Your task to perform on an android device: open app "Facebook" (install if not already installed) and go to login screen Image 0: 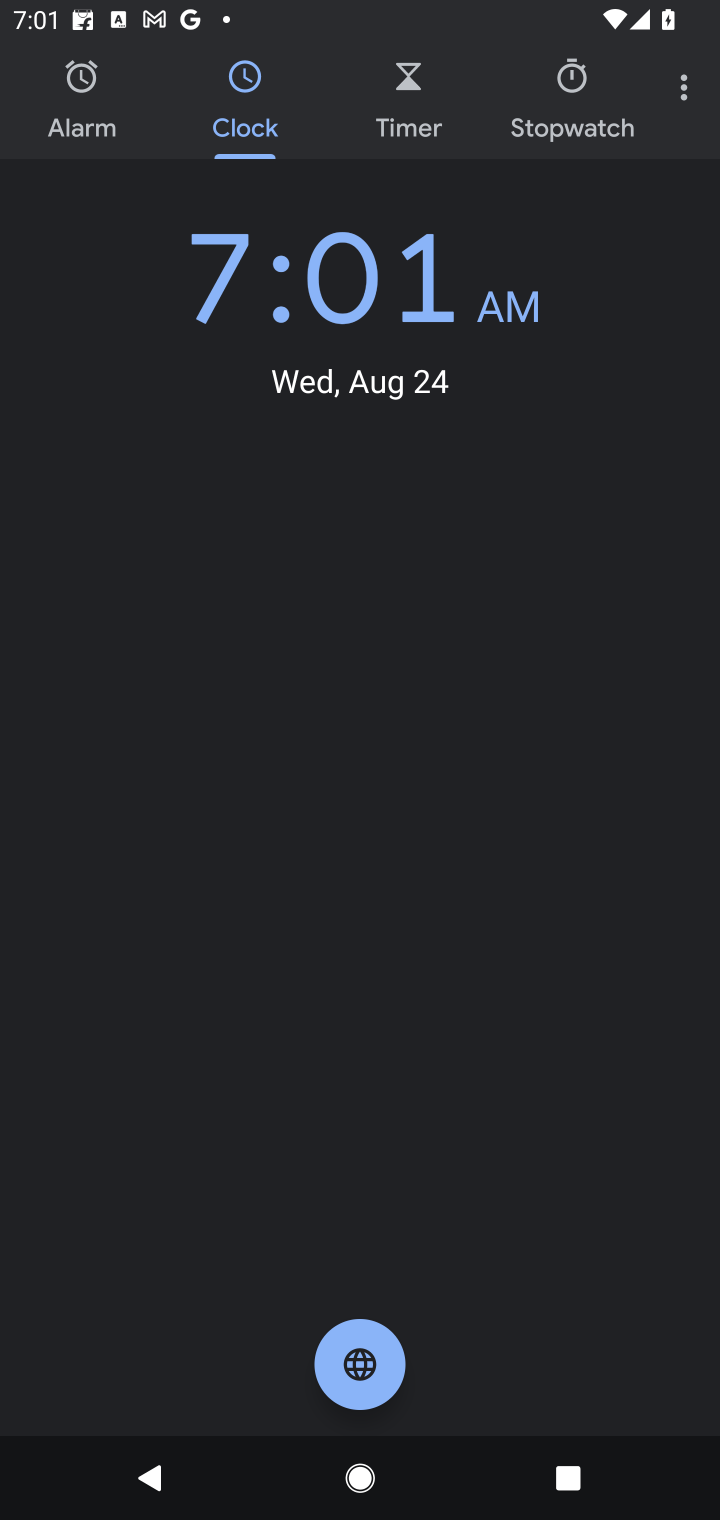
Step 0: press home button
Your task to perform on an android device: open app "Facebook" (install if not already installed) and go to login screen Image 1: 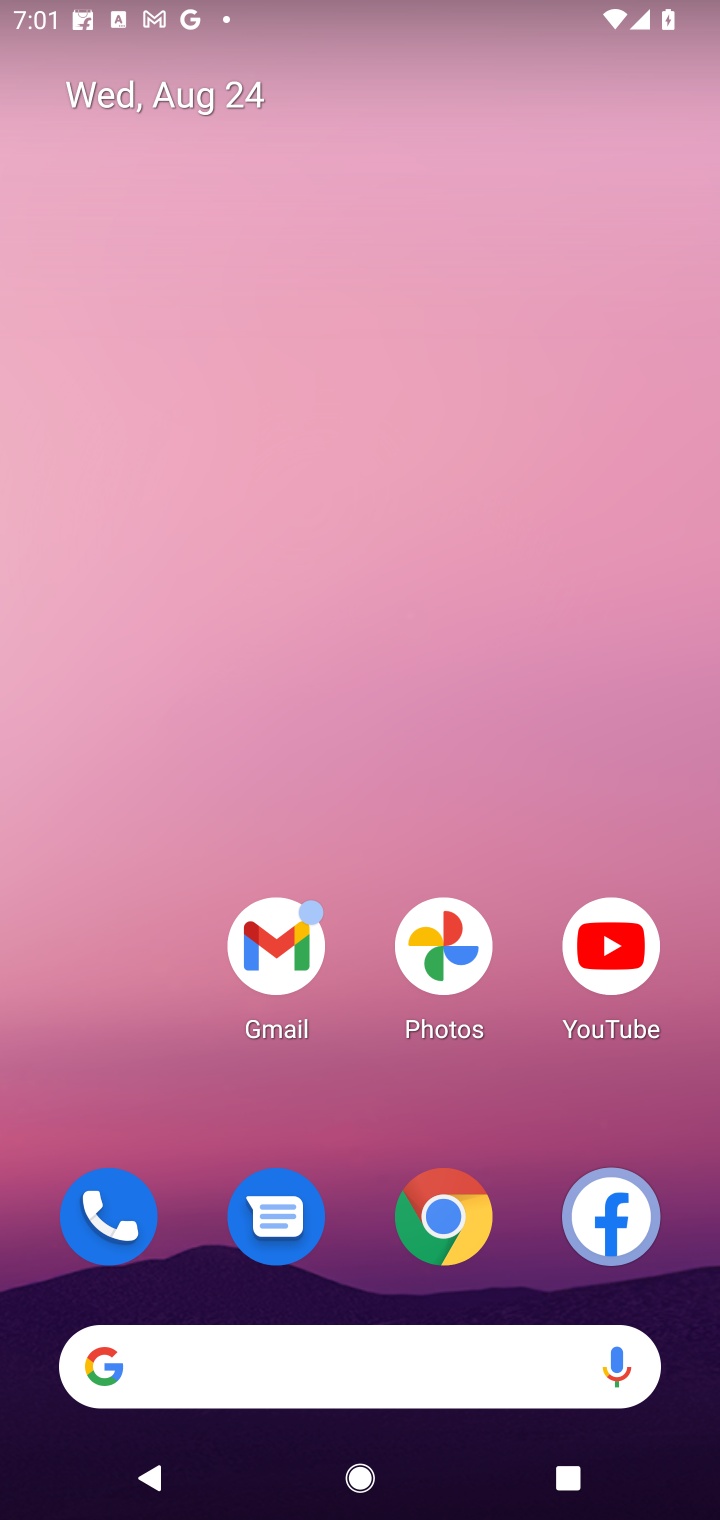
Step 1: drag from (351, 1094) to (362, 173)
Your task to perform on an android device: open app "Facebook" (install if not already installed) and go to login screen Image 2: 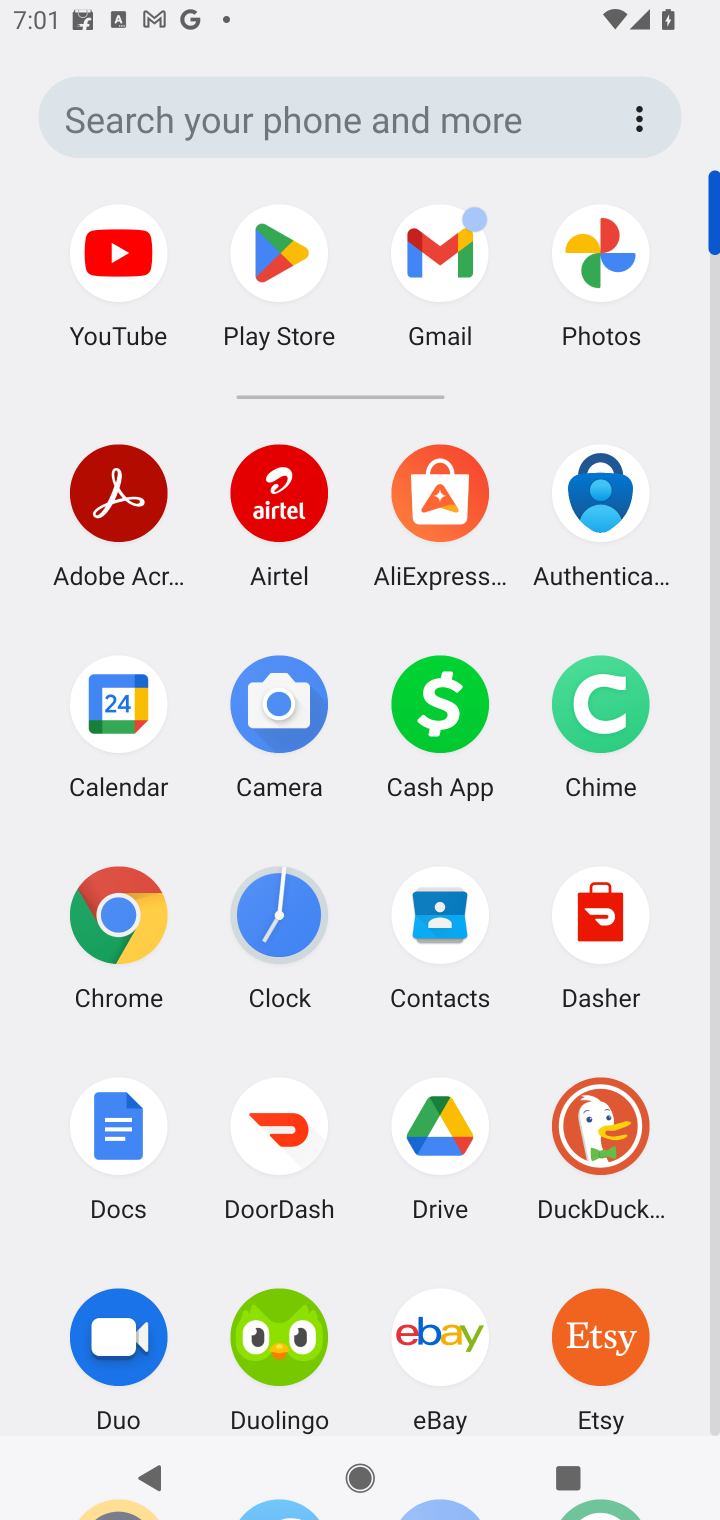
Step 2: click (293, 246)
Your task to perform on an android device: open app "Facebook" (install if not already installed) and go to login screen Image 3: 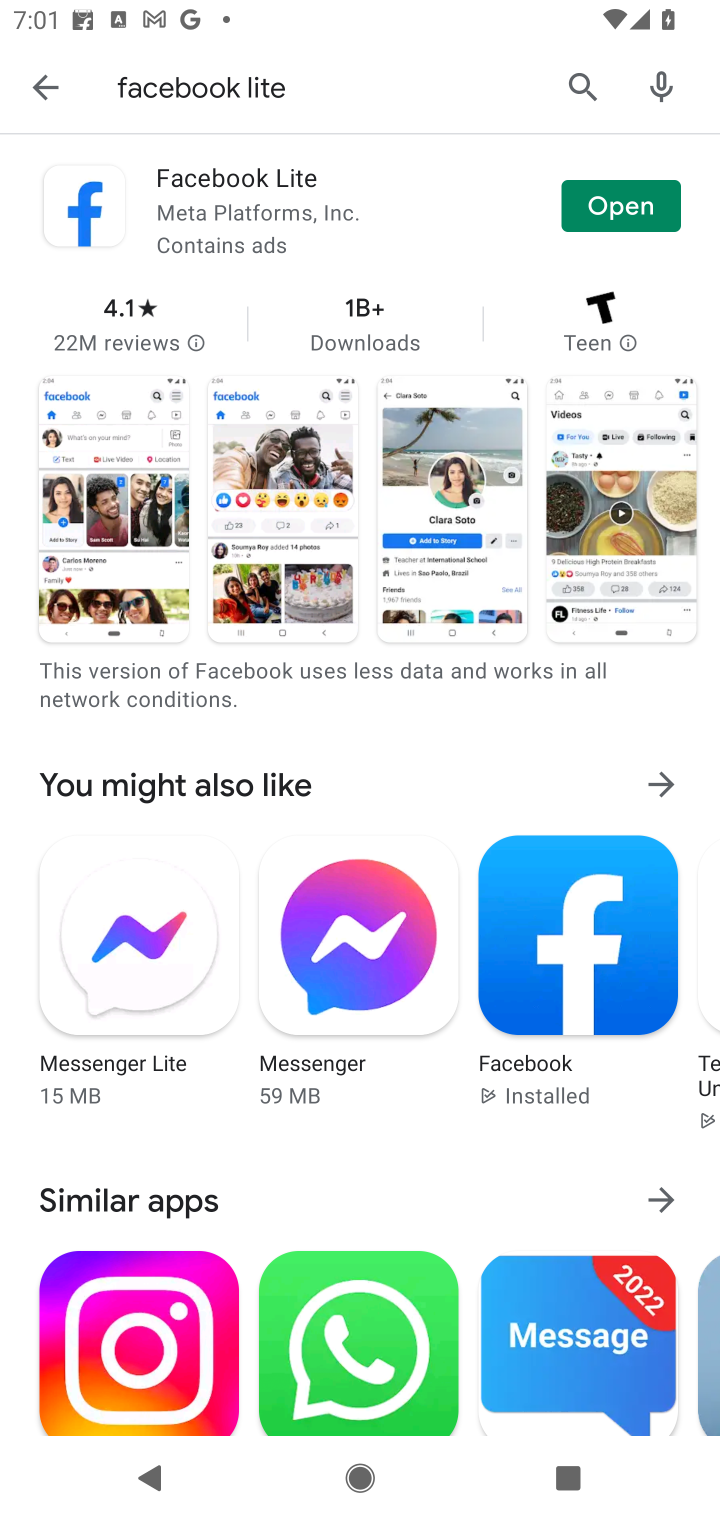
Step 3: click (575, 97)
Your task to perform on an android device: open app "Facebook" (install if not already installed) and go to login screen Image 4: 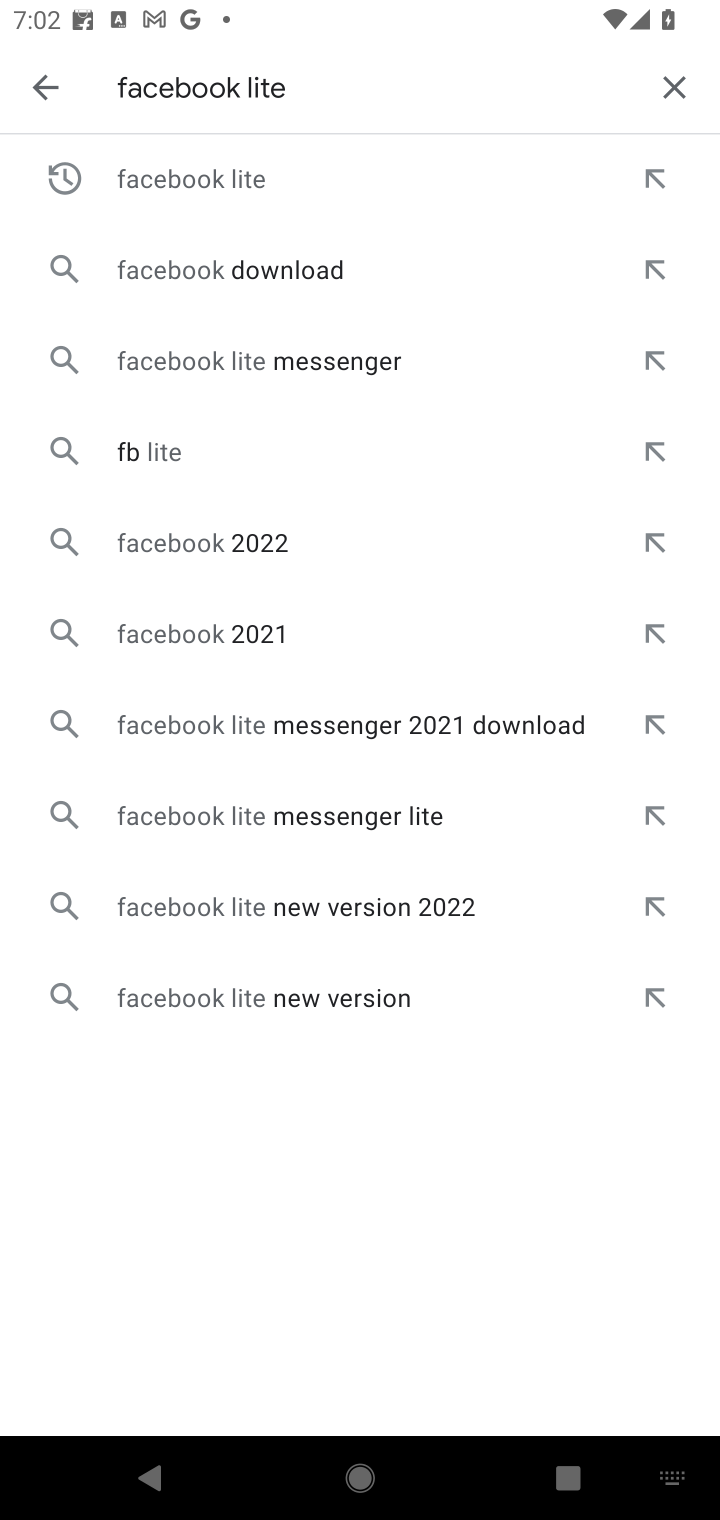
Step 4: click (664, 89)
Your task to perform on an android device: open app "Facebook" (install if not already installed) and go to login screen Image 5: 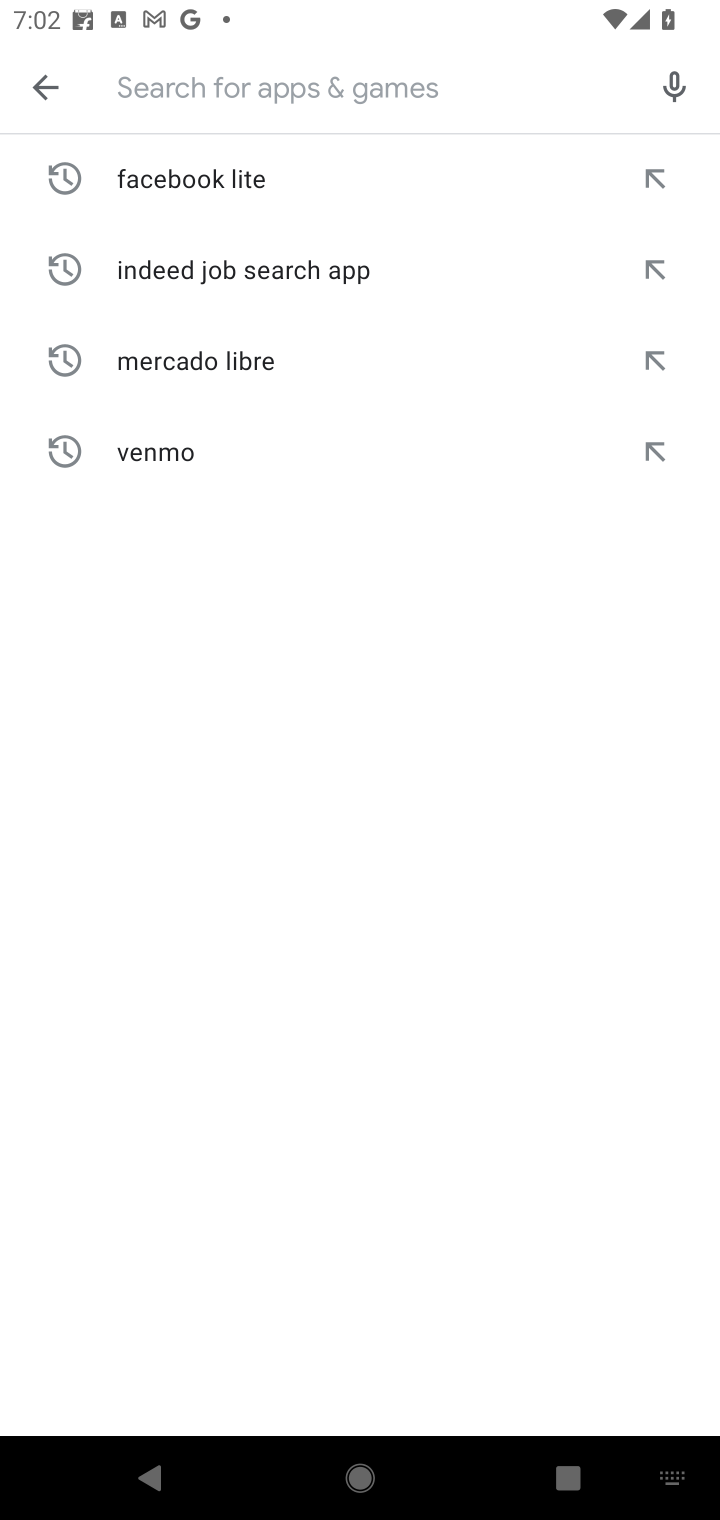
Step 5: type "Facebook"
Your task to perform on an android device: open app "Facebook" (install if not already installed) and go to login screen Image 6: 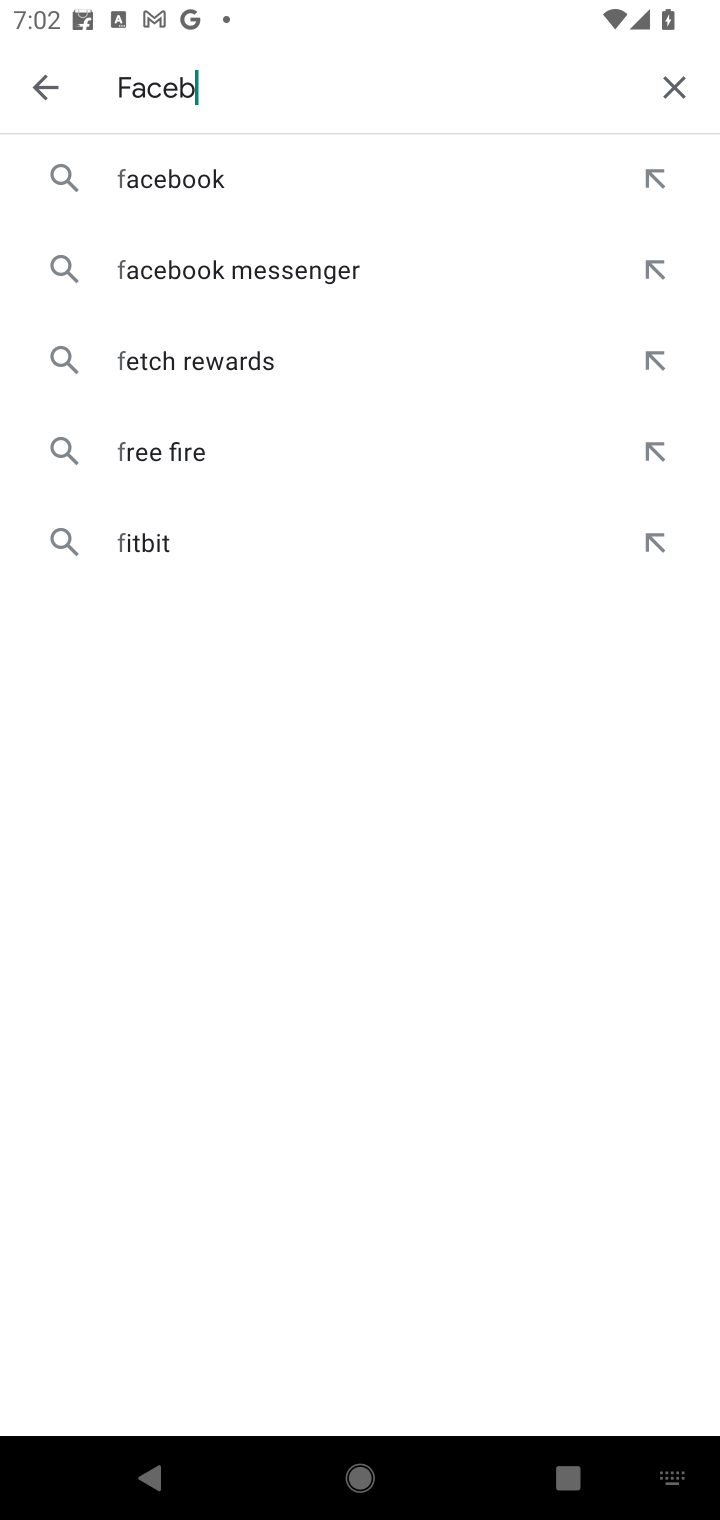
Step 6: type ""
Your task to perform on an android device: open app "Facebook" (install if not already installed) and go to login screen Image 7: 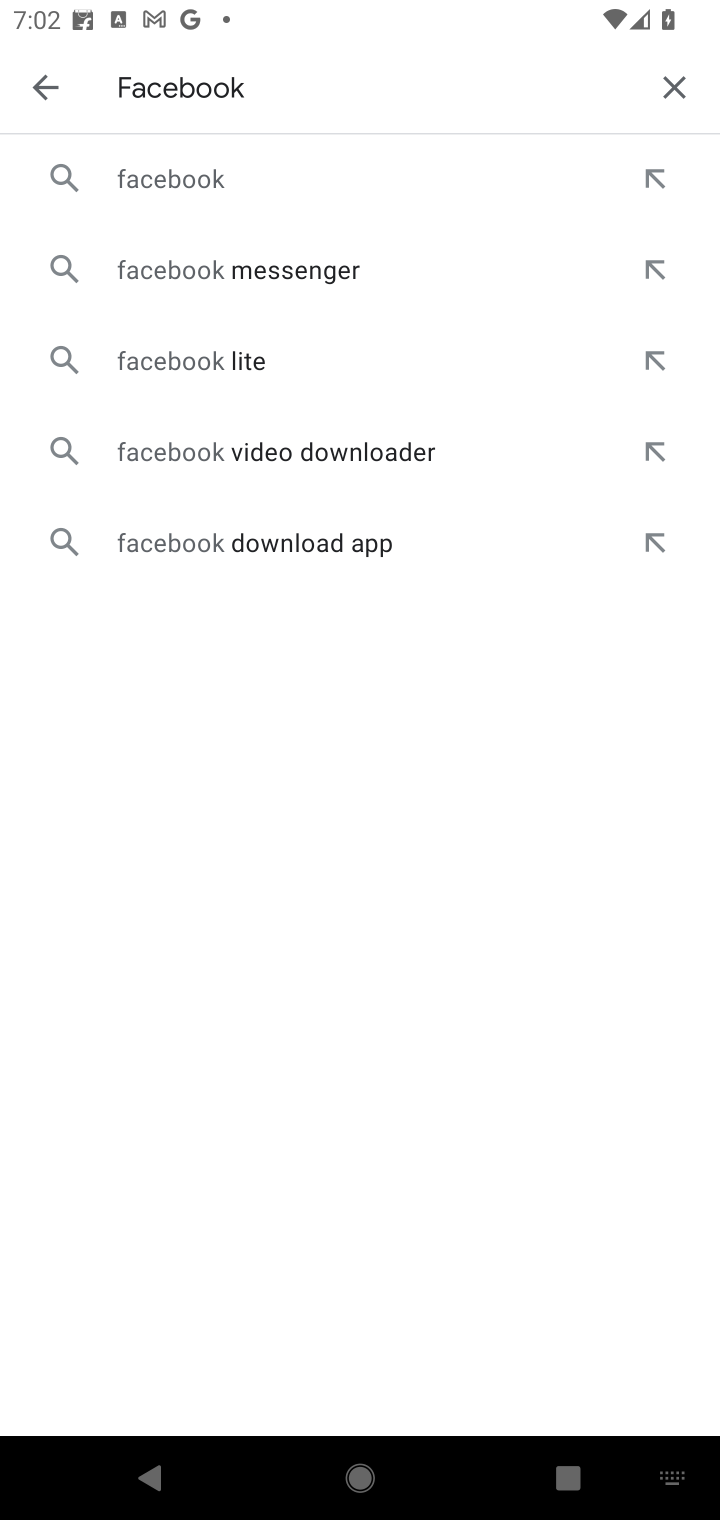
Step 7: click (265, 185)
Your task to perform on an android device: open app "Facebook" (install if not already installed) and go to login screen Image 8: 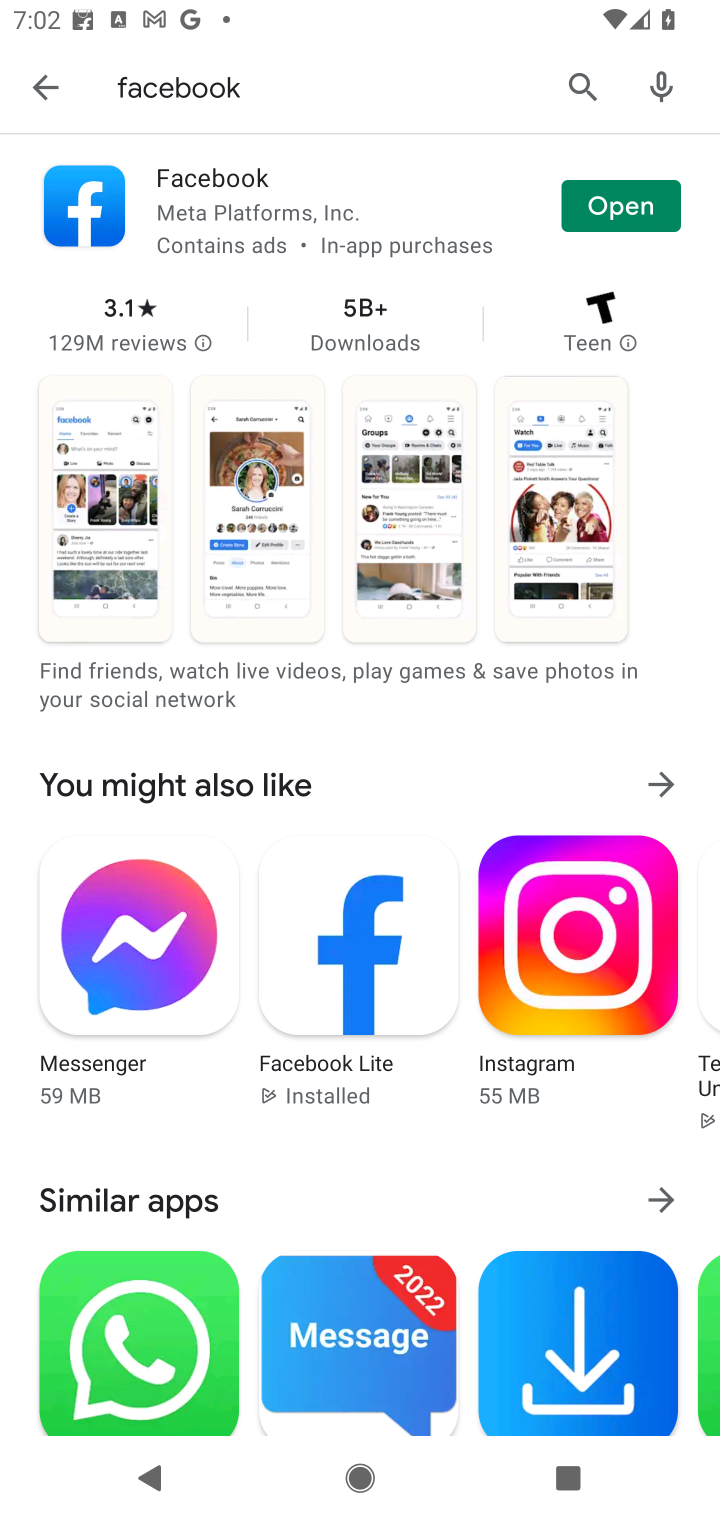
Step 8: click (607, 222)
Your task to perform on an android device: open app "Facebook" (install if not already installed) and go to login screen Image 9: 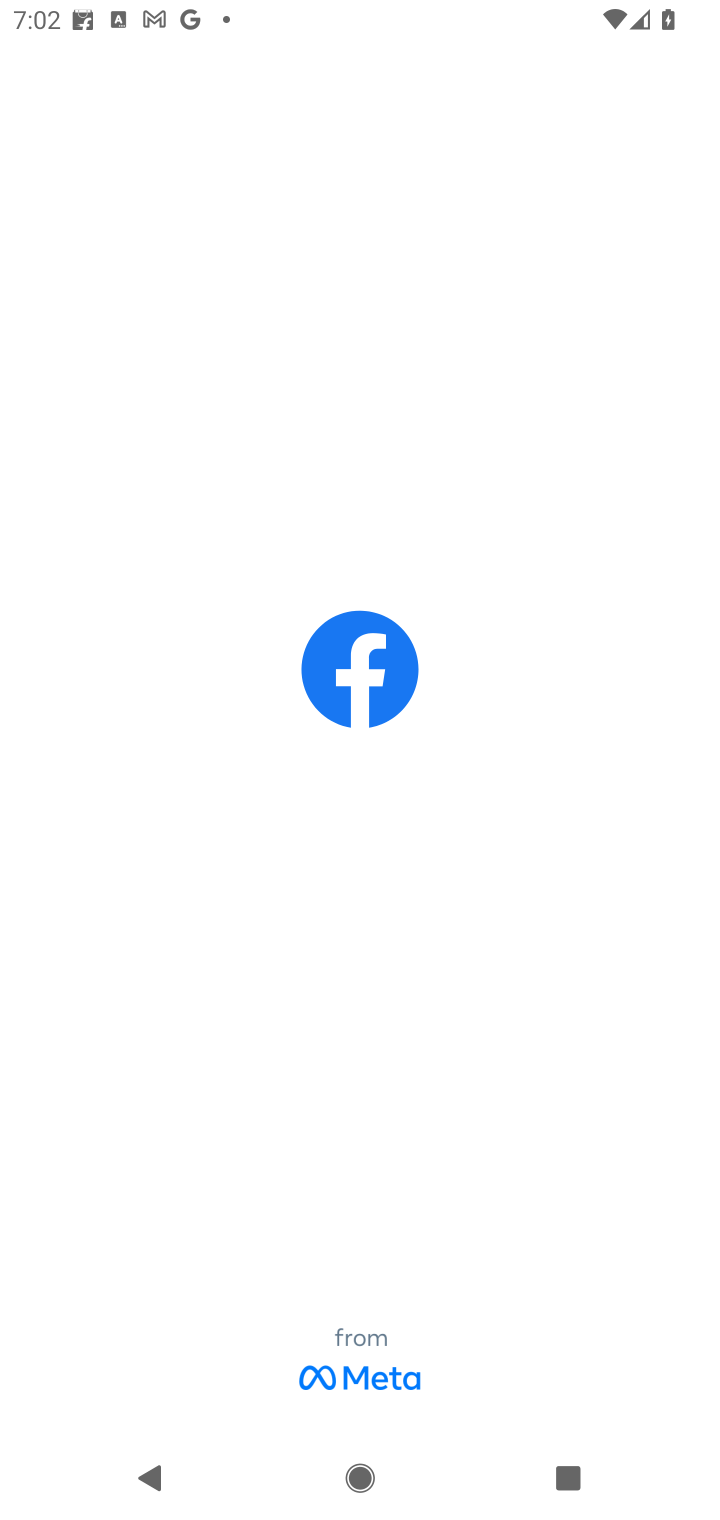
Step 9: task complete